Your task to perform on an android device: Is it going to rain this weekend? Image 0: 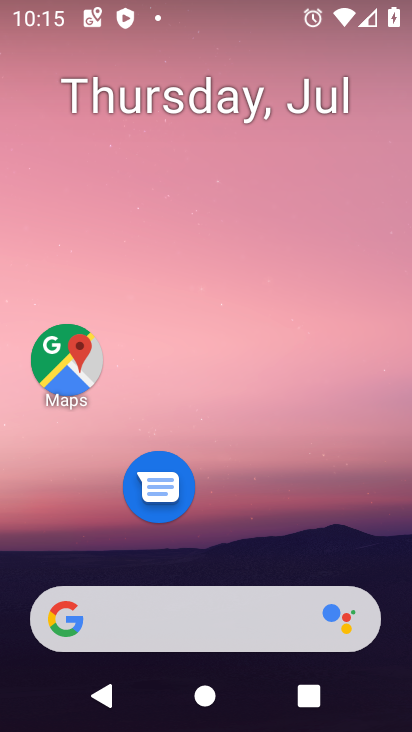
Step 0: drag from (245, 541) to (230, 239)
Your task to perform on an android device: Is it going to rain this weekend? Image 1: 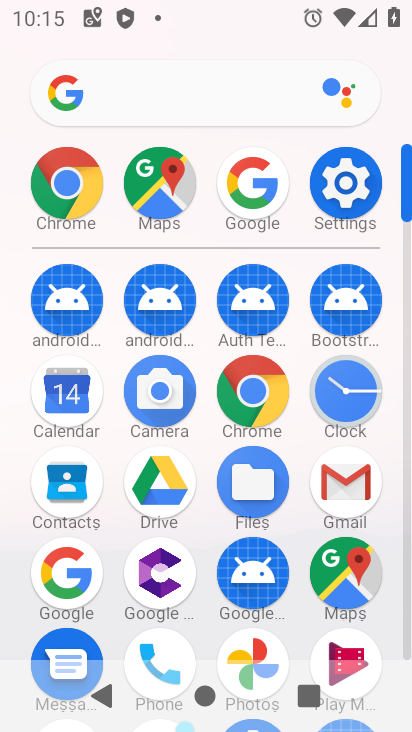
Step 1: click (61, 573)
Your task to perform on an android device: Is it going to rain this weekend? Image 2: 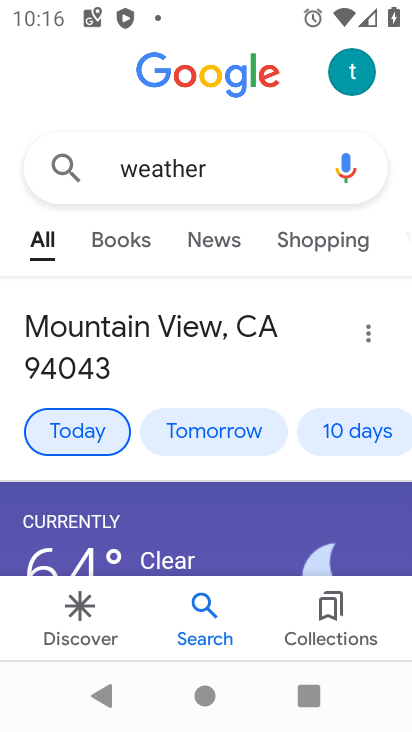
Step 2: click (358, 437)
Your task to perform on an android device: Is it going to rain this weekend? Image 3: 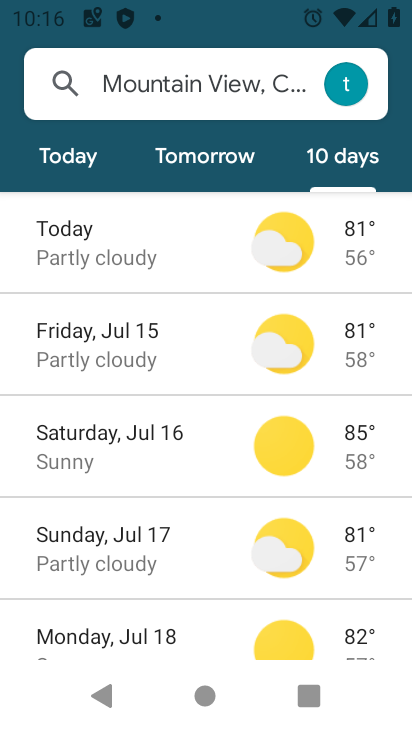
Step 3: task complete